Your task to perform on an android device: star an email in the gmail app Image 0: 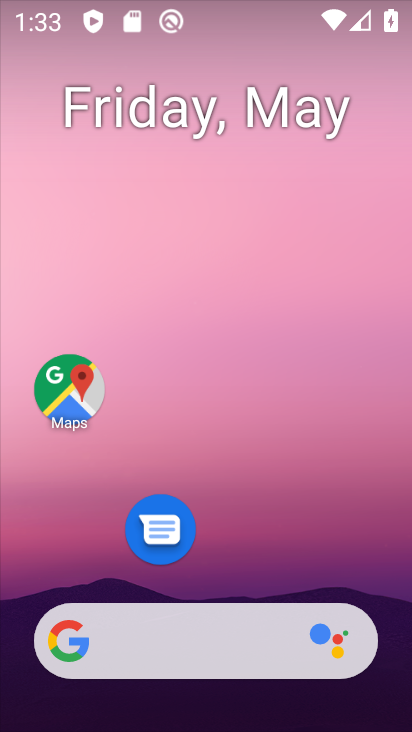
Step 0: drag from (212, 577) to (225, 99)
Your task to perform on an android device: star an email in the gmail app Image 1: 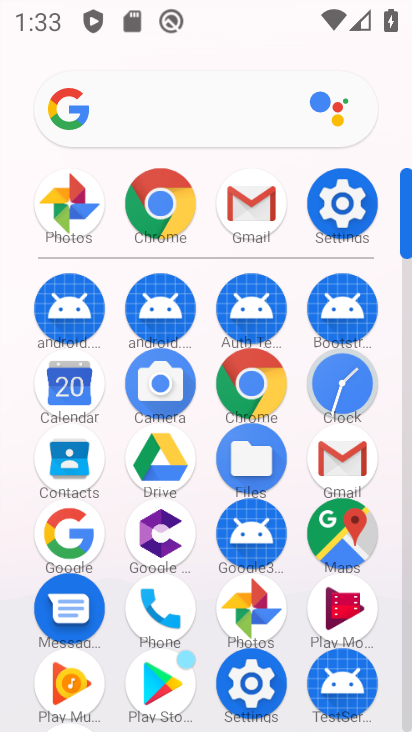
Step 1: click (330, 453)
Your task to perform on an android device: star an email in the gmail app Image 2: 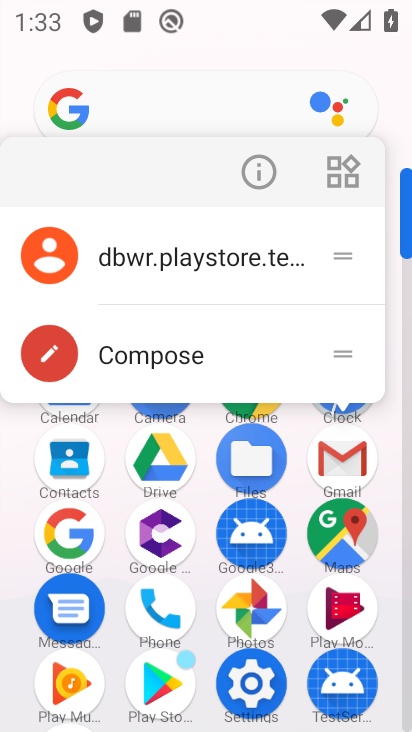
Step 2: click (182, 267)
Your task to perform on an android device: star an email in the gmail app Image 3: 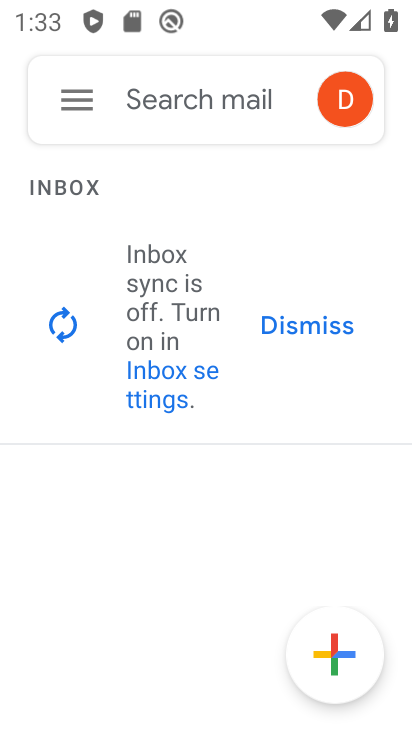
Step 3: click (61, 108)
Your task to perform on an android device: star an email in the gmail app Image 4: 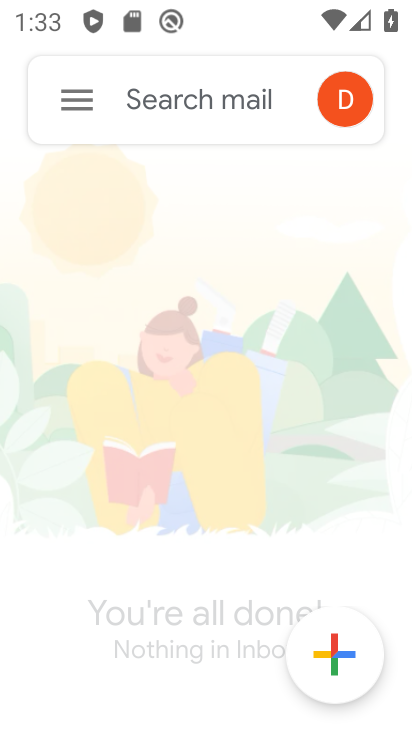
Step 4: click (140, 178)
Your task to perform on an android device: star an email in the gmail app Image 5: 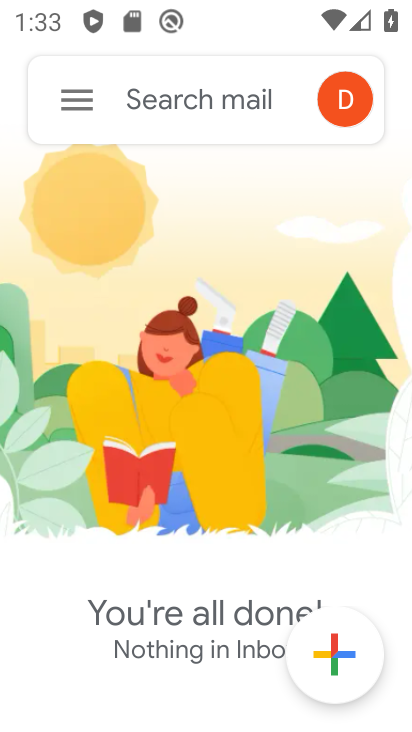
Step 5: click (59, 119)
Your task to perform on an android device: star an email in the gmail app Image 6: 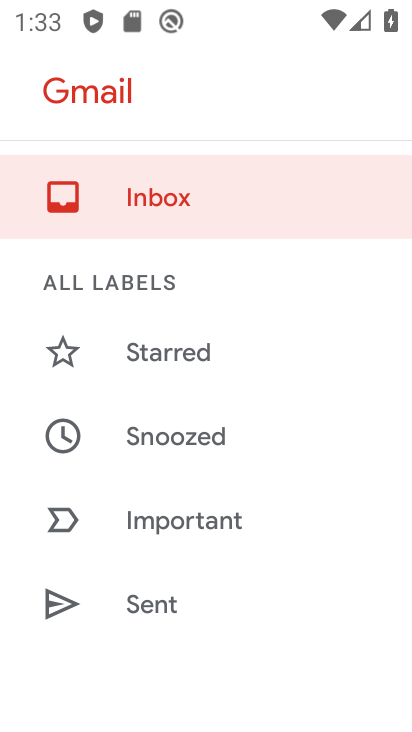
Step 6: click (121, 198)
Your task to perform on an android device: star an email in the gmail app Image 7: 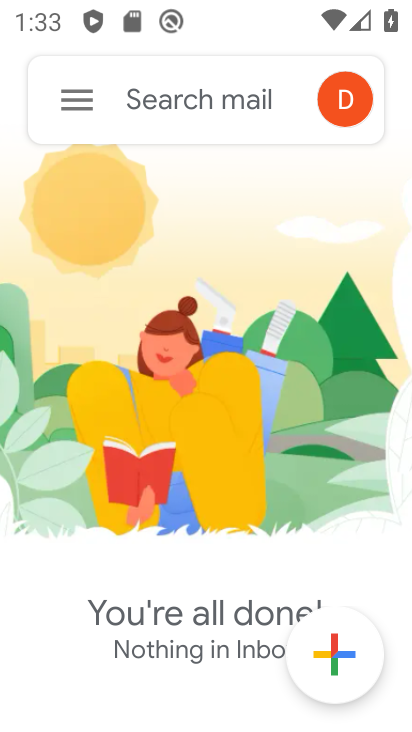
Step 7: task complete